Your task to perform on an android device: change notification settings in the gmail app Image 0: 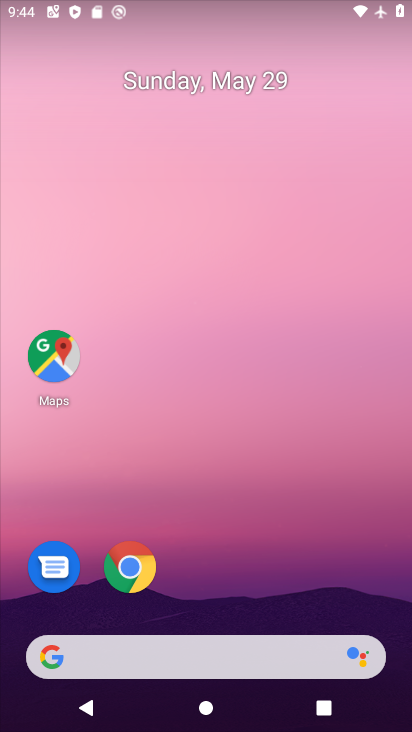
Step 0: drag from (386, 624) to (327, 68)
Your task to perform on an android device: change notification settings in the gmail app Image 1: 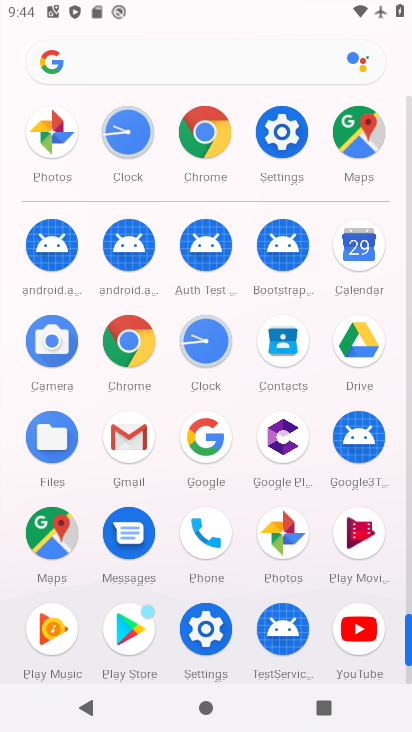
Step 1: click (129, 434)
Your task to perform on an android device: change notification settings in the gmail app Image 2: 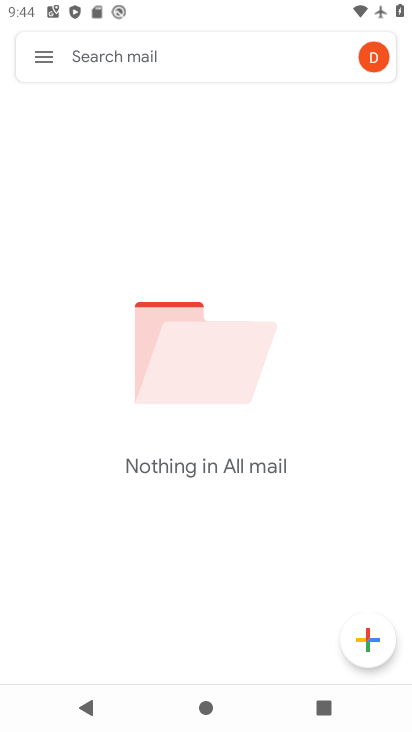
Step 2: click (39, 59)
Your task to perform on an android device: change notification settings in the gmail app Image 3: 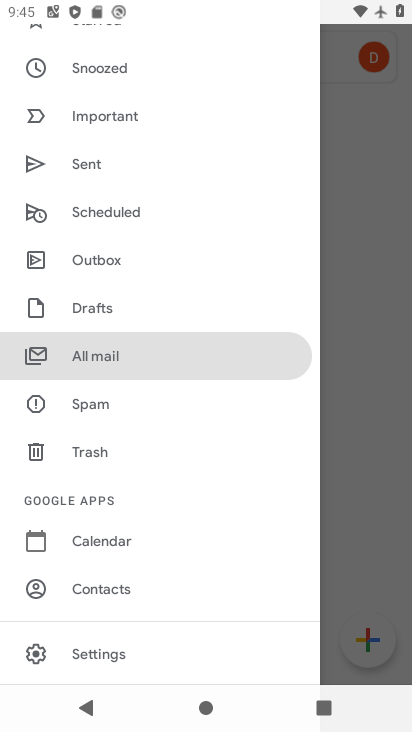
Step 3: click (101, 655)
Your task to perform on an android device: change notification settings in the gmail app Image 4: 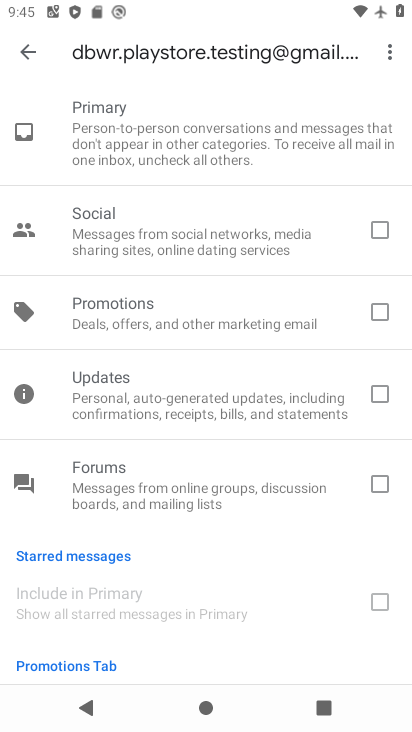
Step 4: press back button
Your task to perform on an android device: change notification settings in the gmail app Image 5: 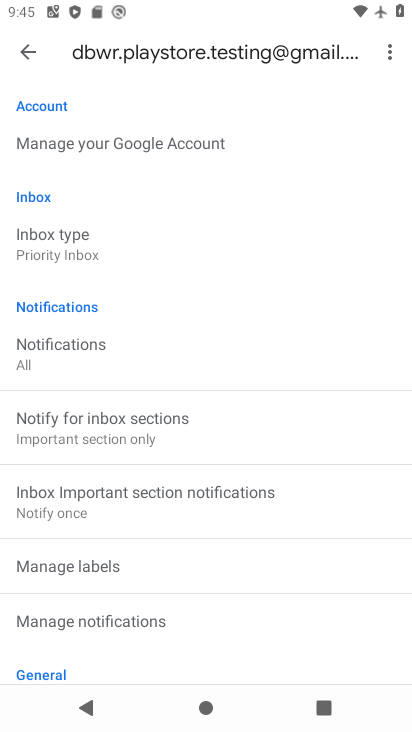
Step 5: click (122, 615)
Your task to perform on an android device: change notification settings in the gmail app Image 6: 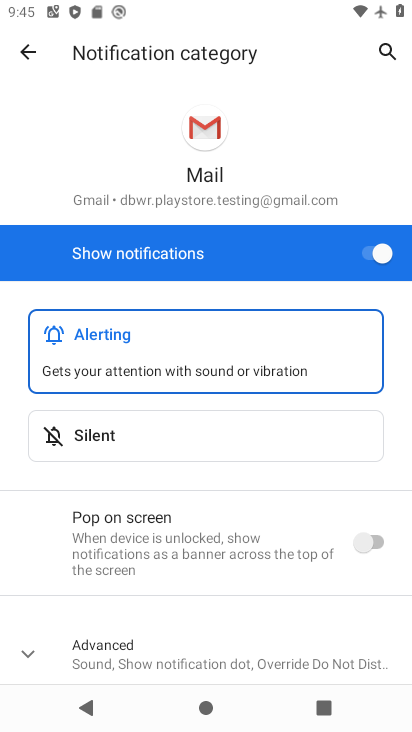
Step 6: click (363, 255)
Your task to perform on an android device: change notification settings in the gmail app Image 7: 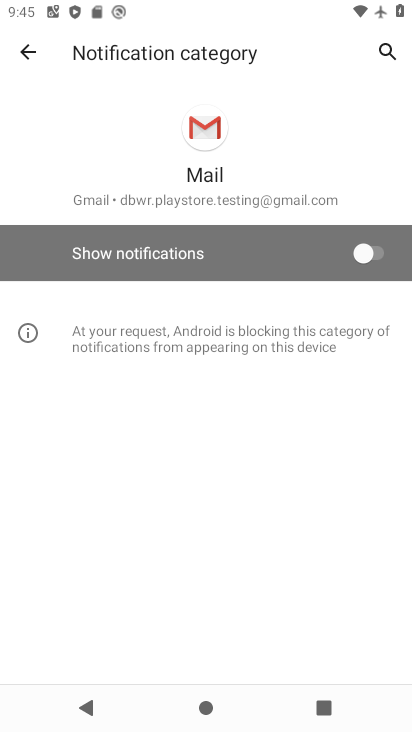
Step 7: task complete